Your task to perform on an android device: turn on bluetooth scan Image 0: 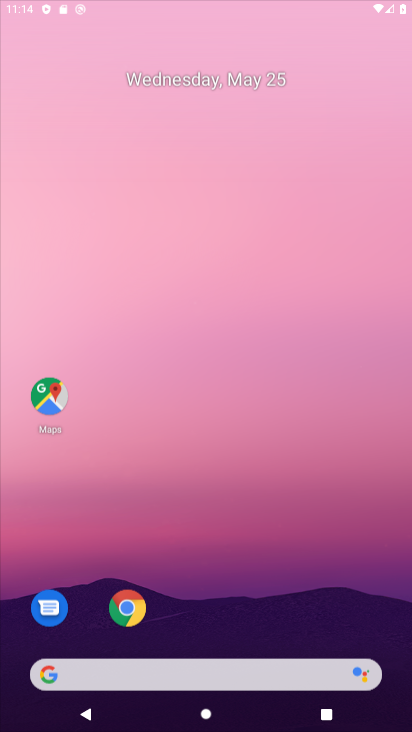
Step 0: drag from (222, 568) to (286, 15)
Your task to perform on an android device: turn on bluetooth scan Image 1: 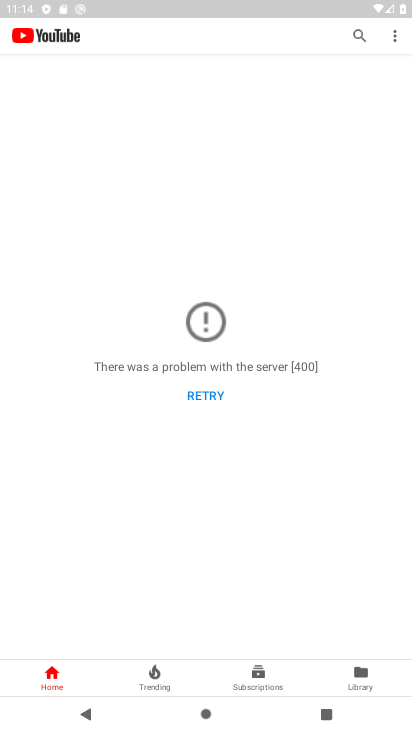
Step 1: press home button
Your task to perform on an android device: turn on bluetooth scan Image 2: 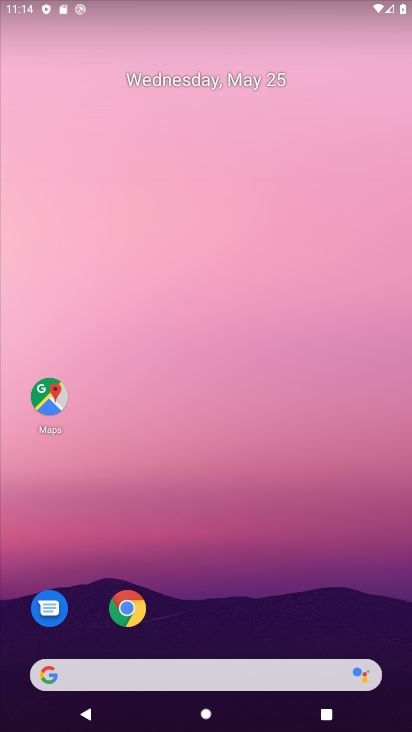
Step 2: drag from (208, 639) to (239, 130)
Your task to perform on an android device: turn on bluetooth scan Image 3: 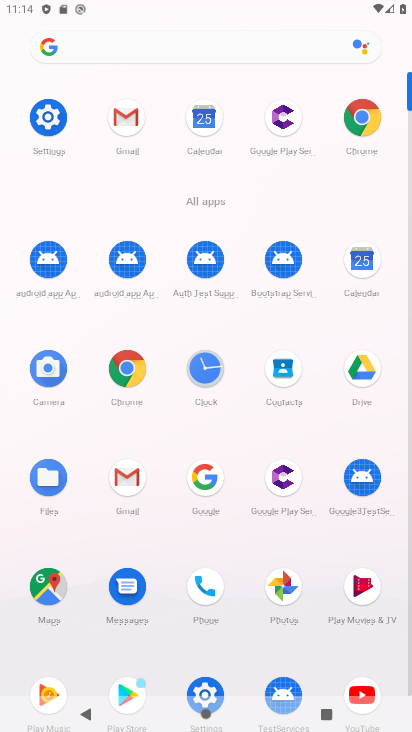
Step 3: click (29, 123)
Your task to perform on an android device: turn on bluetooth scan Image 4: 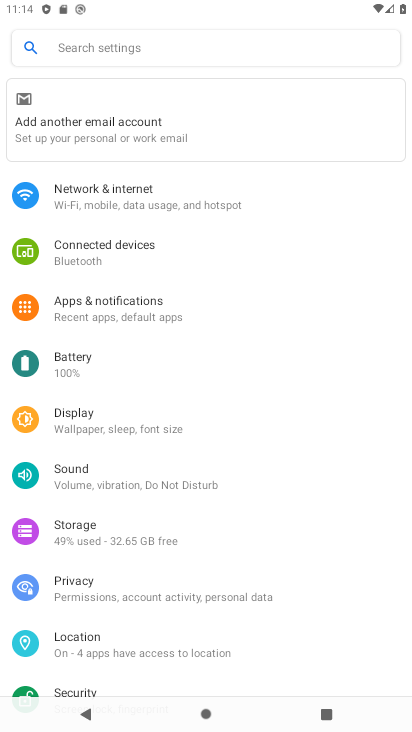
Step 4: click (96, 651)
Your task to perform on an android device: turn on bluetooth scan Image 5: 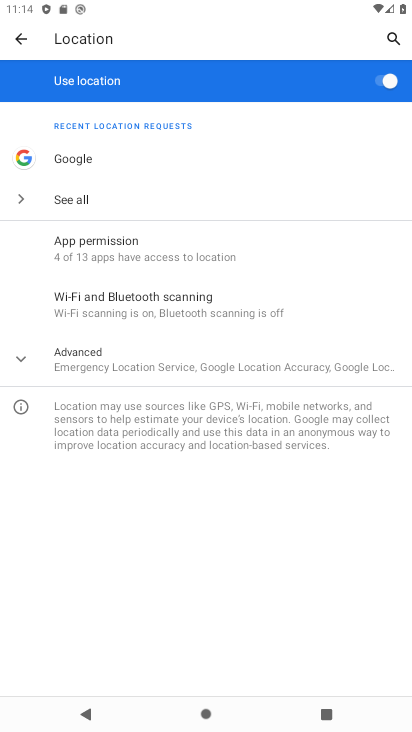
Step 5: click (121, 312)
Your task to perform on an android device: turn on bluetooth scan Image 6: 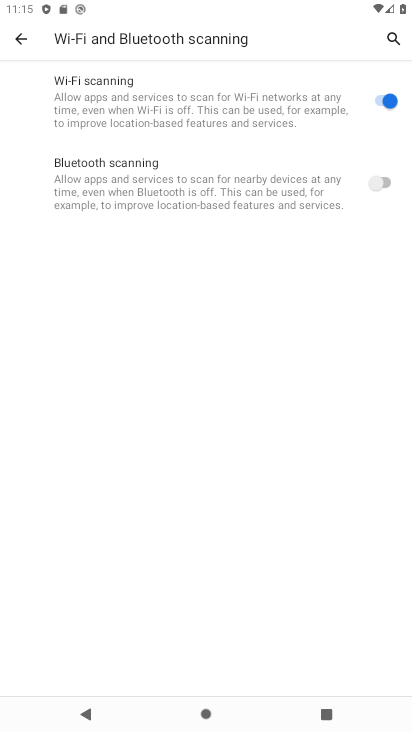
Step 6: click (381, 186)
Your task to perform on an android device: turn on bluetooth scan Image 7: 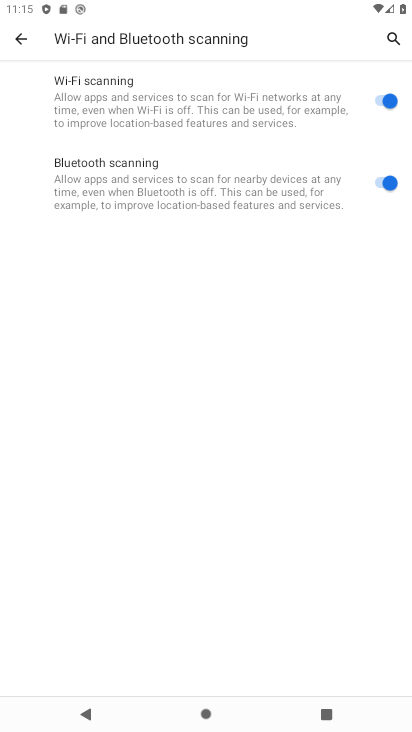
Step 7: task complete